Your task to perform on an android device: turn off improve location accuracy Image 0: 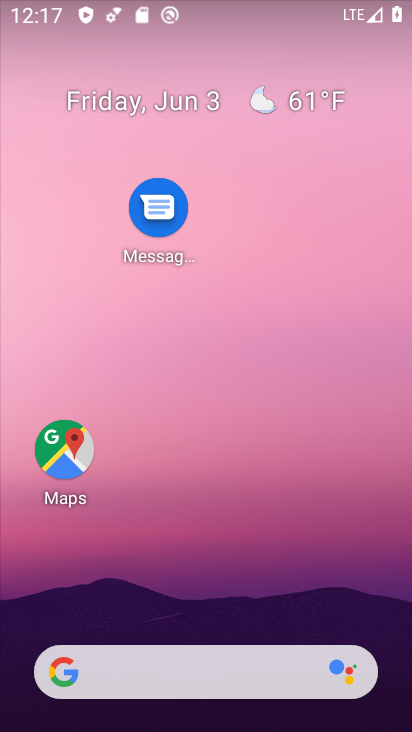
Step 0: drag from (180, 649) to (127, 11)
Your task to perform on an android device: turn off improve location accuracy Image 1: 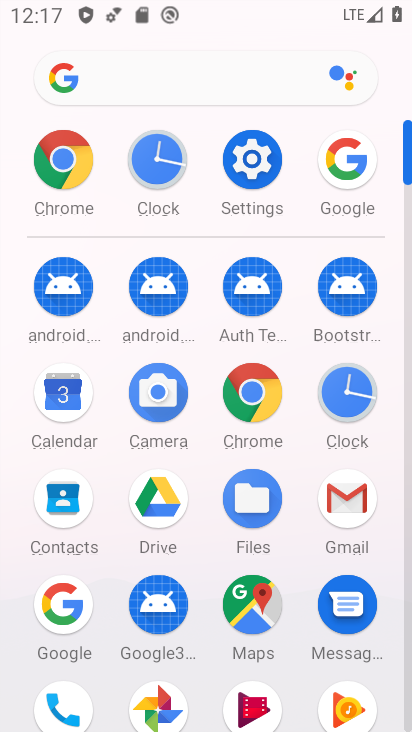
Step 1: click (244, 146)
Your task to perform on an android device: turn off improve location accuracy Image 2: 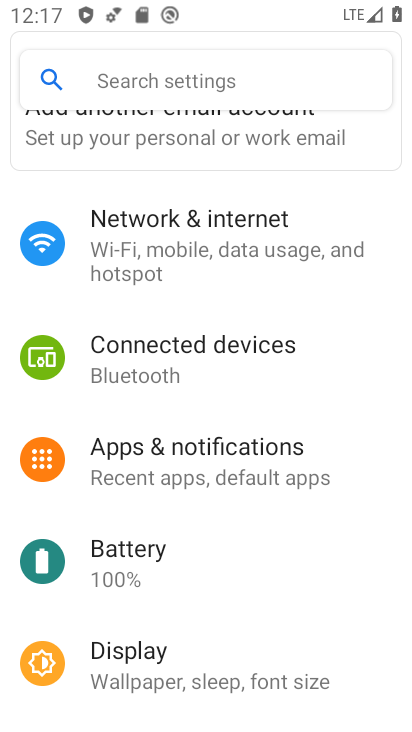
Step 2: drag from (337, 588) to (290, 35)
Your task to perform on an android device: turn off improve location accuracy Image 3: 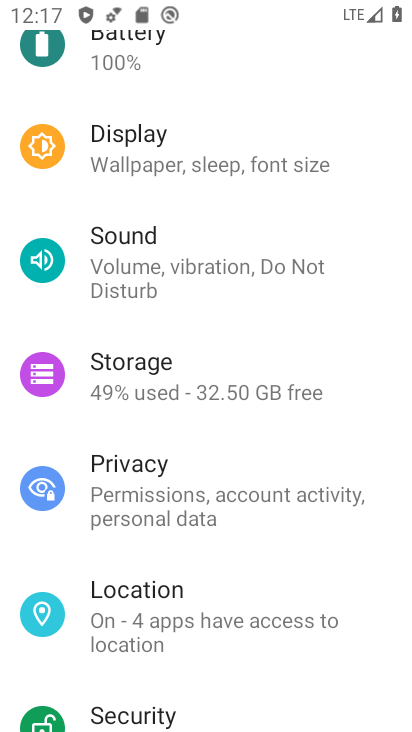
Step 3: click (242, 599)
Your task to perform on an android device: turn off improve location accuracy Image 4: 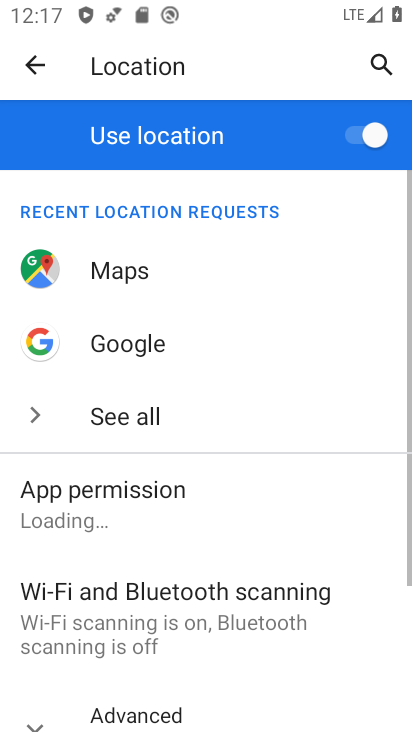
Step 4: drag from (245, 597) to (280, 114)
Your task to perform on an android device: turn off improve location accuracy Image 5: 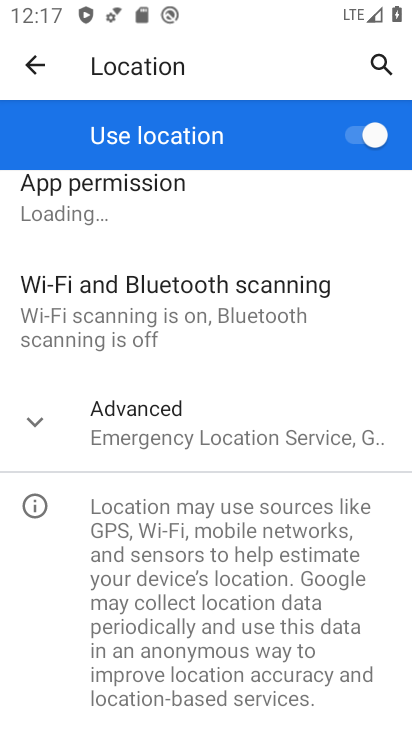
Step 5: click (140, 418)
Your task to perform on an android device: turn off improve location accuracy Image 6: 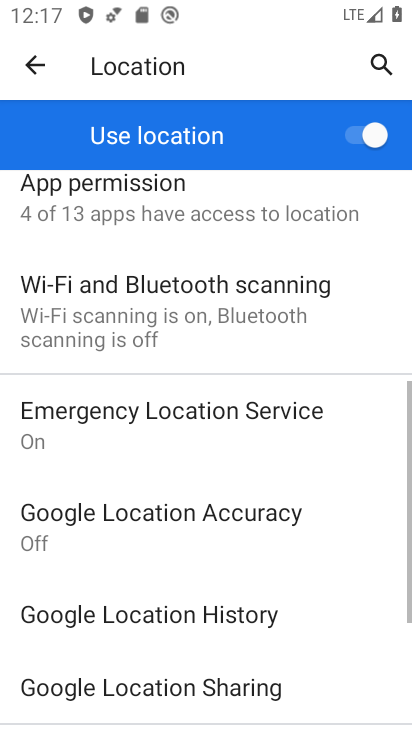
Step 6: click (200, 512)
Your task to perform on an android device: turn off improve location accuracy Image 7: 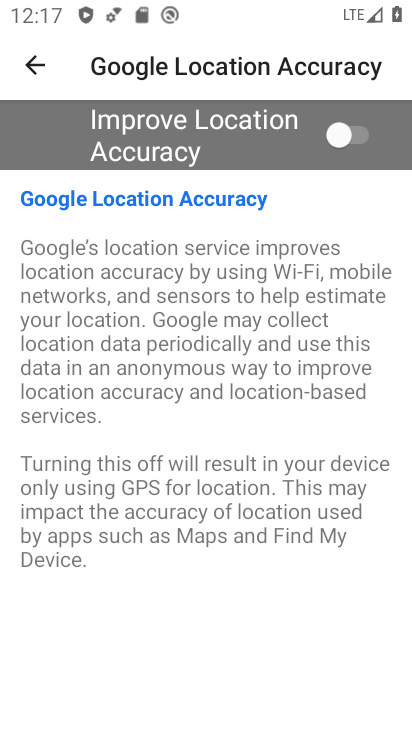
Step 7: task complete